Your task to perform on an android device: all mails in gmail Image 0: 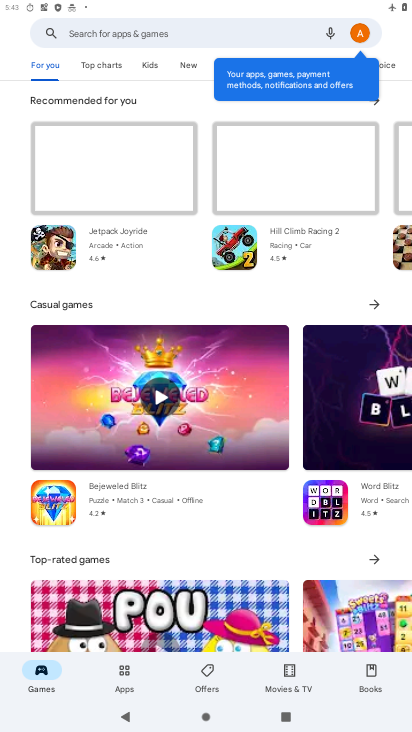
Step 0: press home button
Your task to perform on an android device: all mails in gmail Image 1: 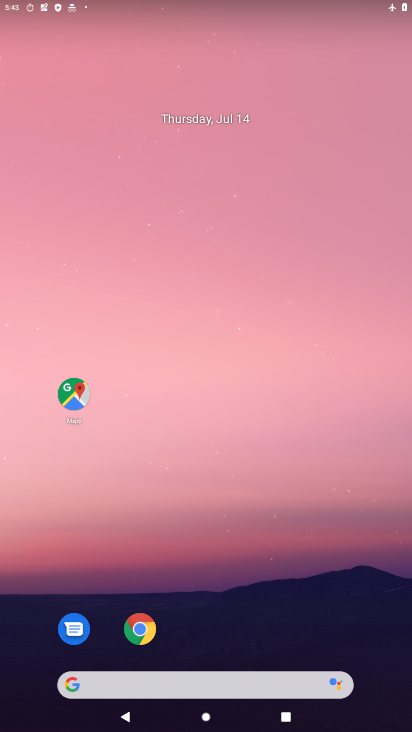
Step 1: drag from (180, 667) to (167, 23)
Your task to perform on an android device: all mails in gmail Image 2: 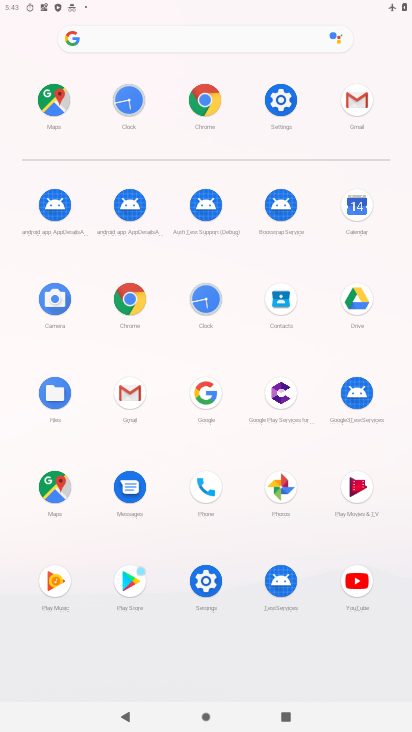
Step 2: click (131, 383)
Your task to perform on an android device: all mails in gmail Image 3: 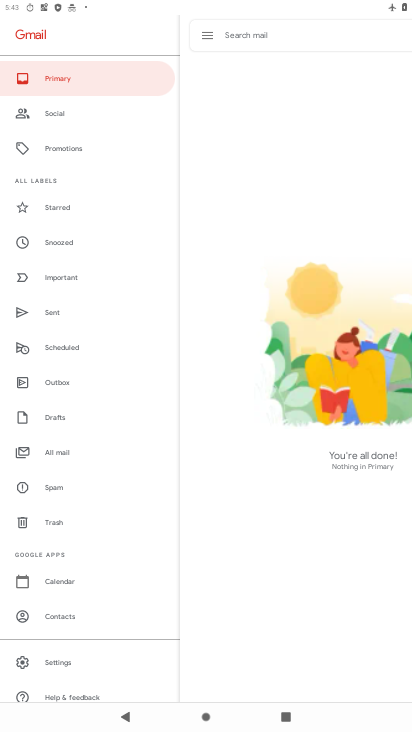
Step 3: click (80, 448)
Your task to perform on an android device: all mails in gmail Image 4: 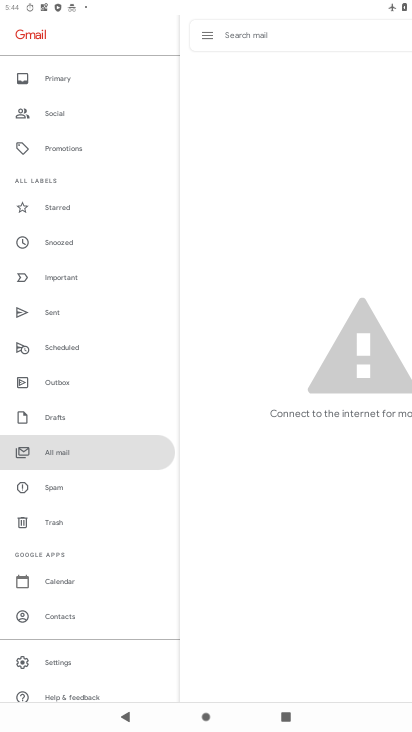
Step 4: task complete